Your task to perform on an android device: visit the assistant section in the google photos Image 0: 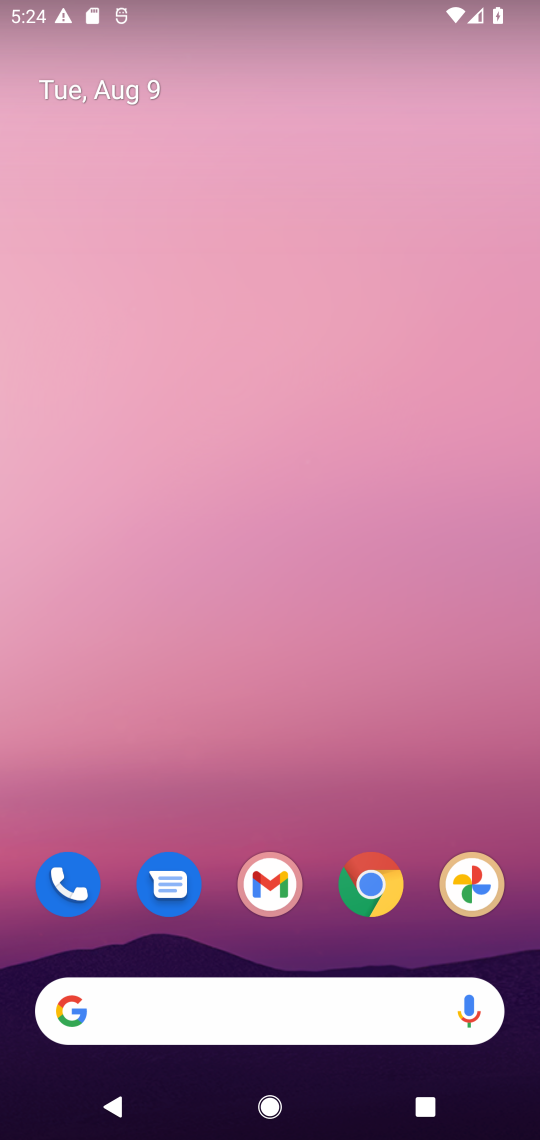
Step 0: click (358, 139)
Your task to perform on an android device: visit the assistant section in the google photos Image 1: 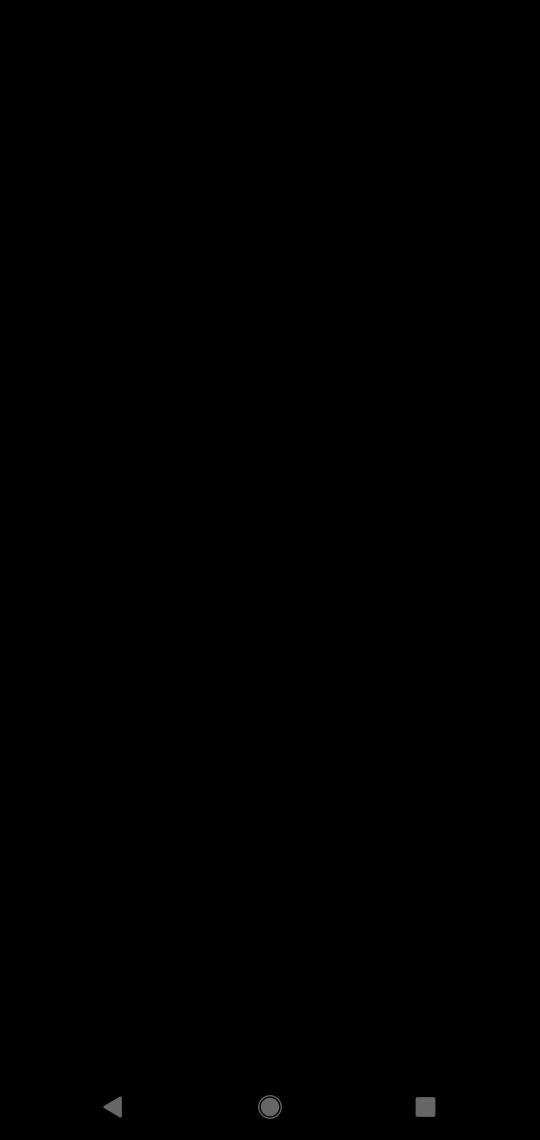
Step 1: press home button
Your task to perform on an android device: visit the assistant section in the google photos Image 2: 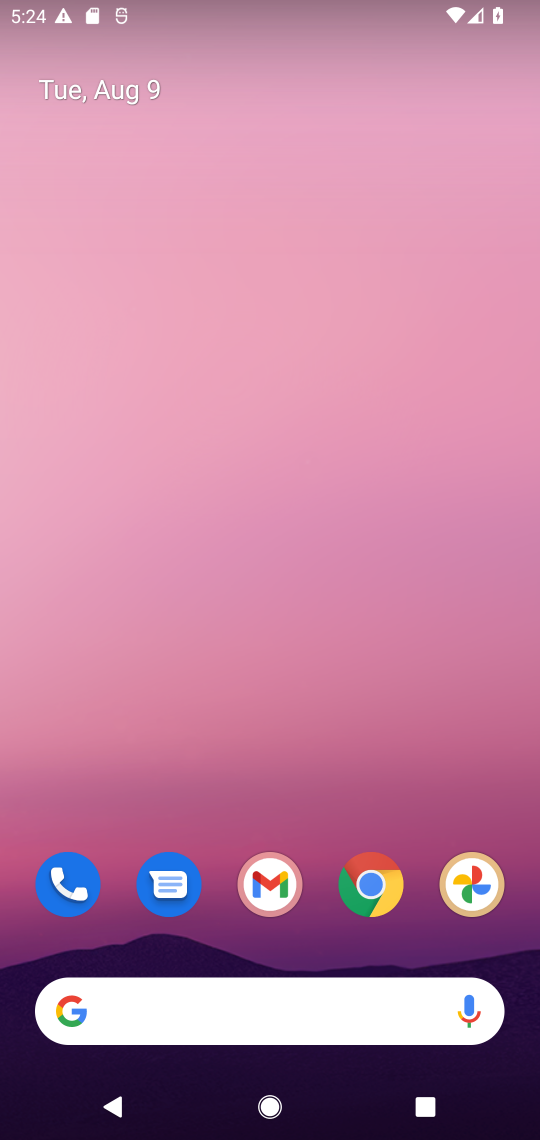
Step 2: click (471, 884)
Your task to perform on an android device: visit the assistant section in the google photos Image 3: 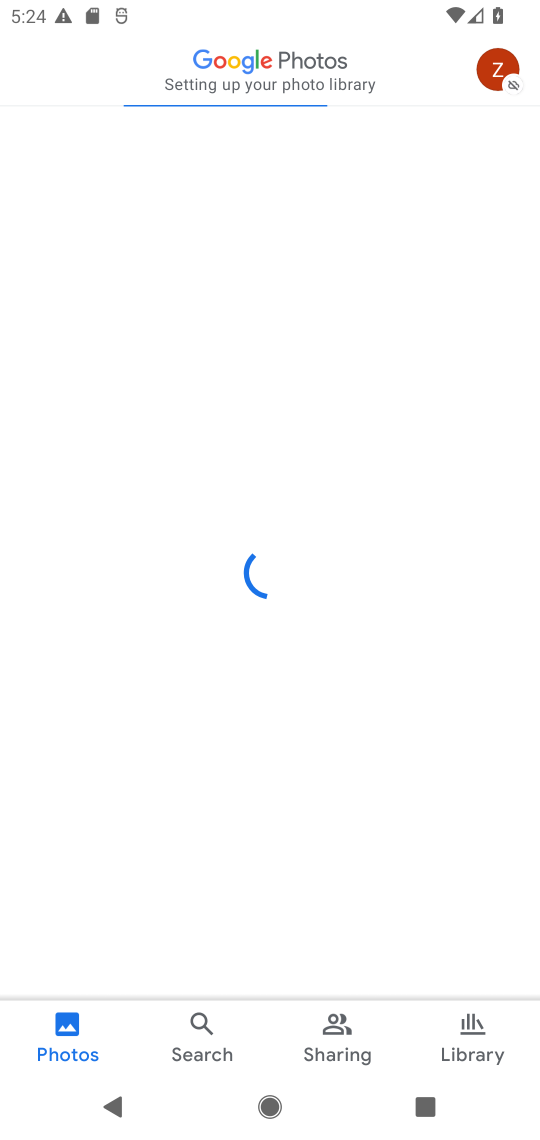
Step 3: click (509, 58)
Your task to perform on an android device: visit the assistant section in the google photos Image 4: 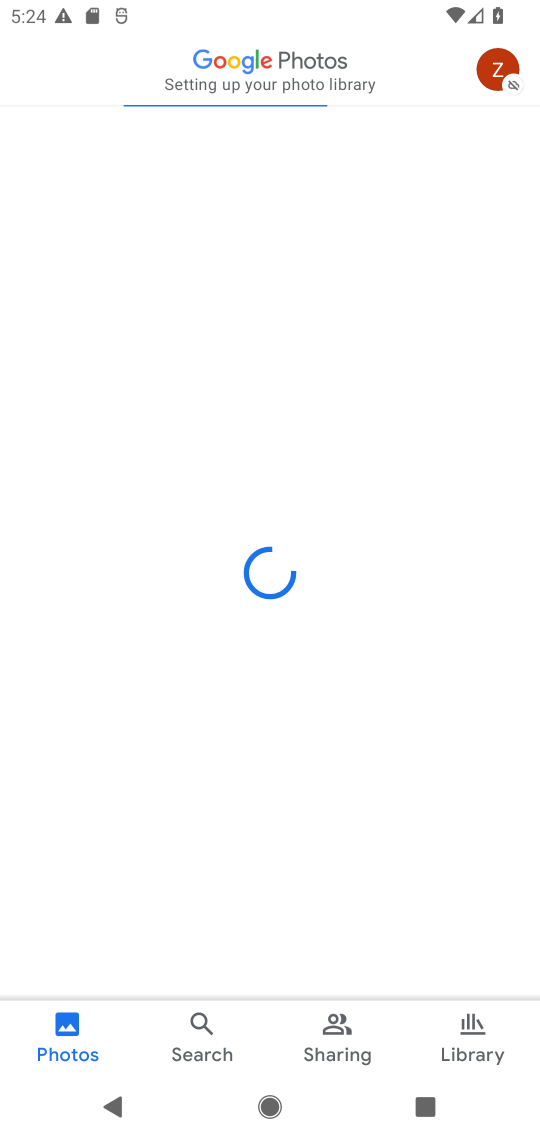
Step 4: click (345, 1043)
Your task to perform on an android device: visit the assistant section in the google photos Image 5: 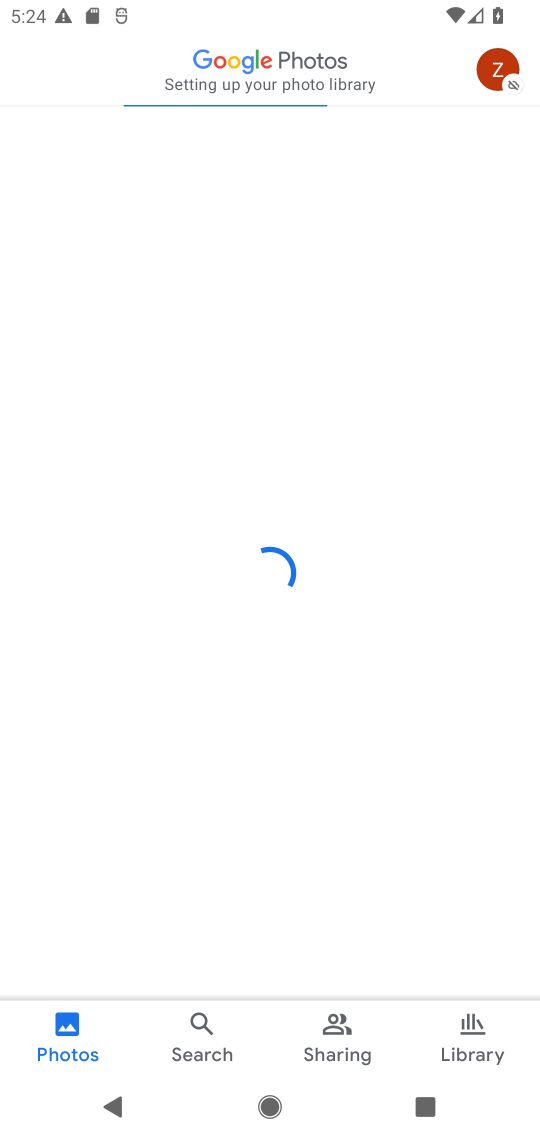
Step 5: click (325, 1027)
Your task to perform on an android device: visit the assistant section in the google photos Image 6: 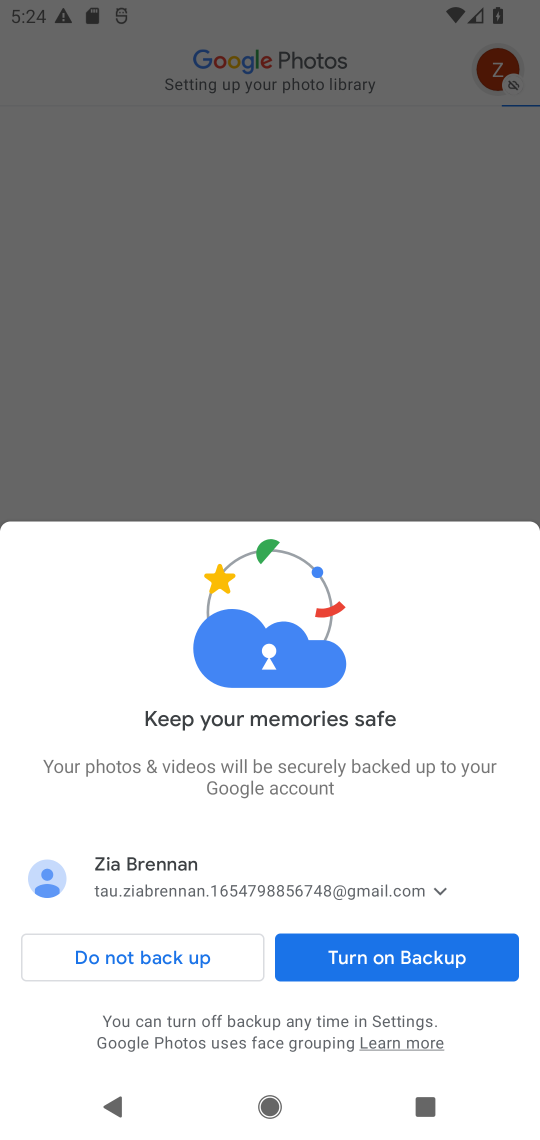
Step 6: click (374, 356)
Your task to perform on an android device: visit the assistant section in the google photos Image 7: 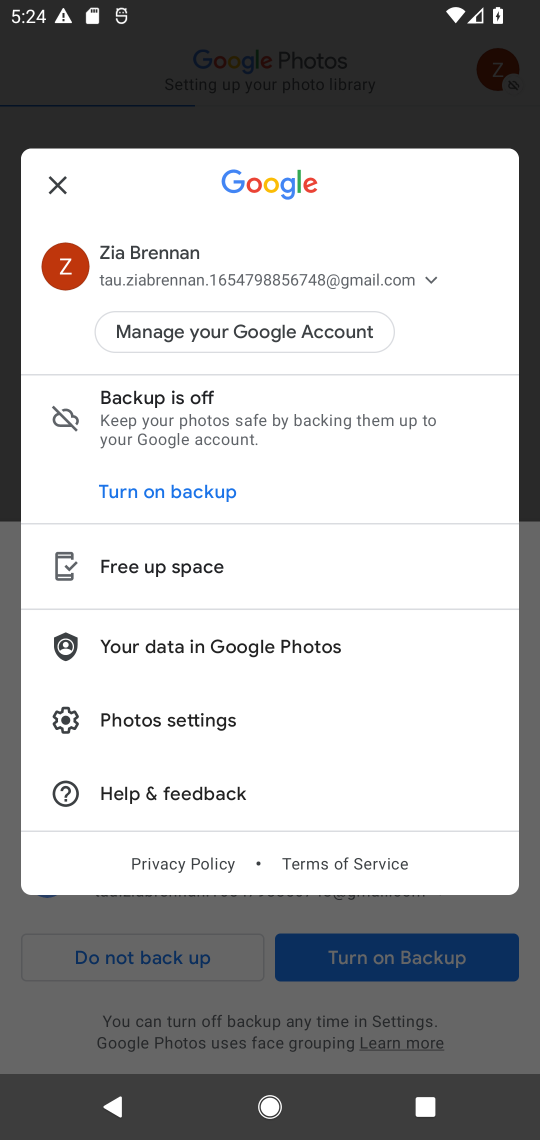
Step 7: click (165, 708)
Your task to perform on an android device: visit the assistant section in the google photos Image 8: 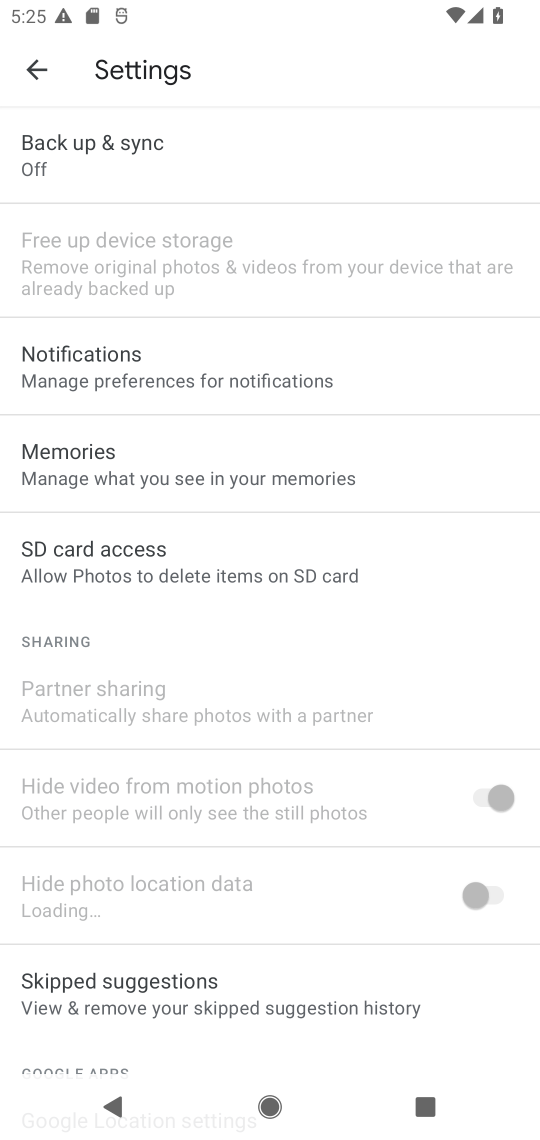
Step 8: task complete